Your task to perform on an android device: When is my next meeting? Image 0: 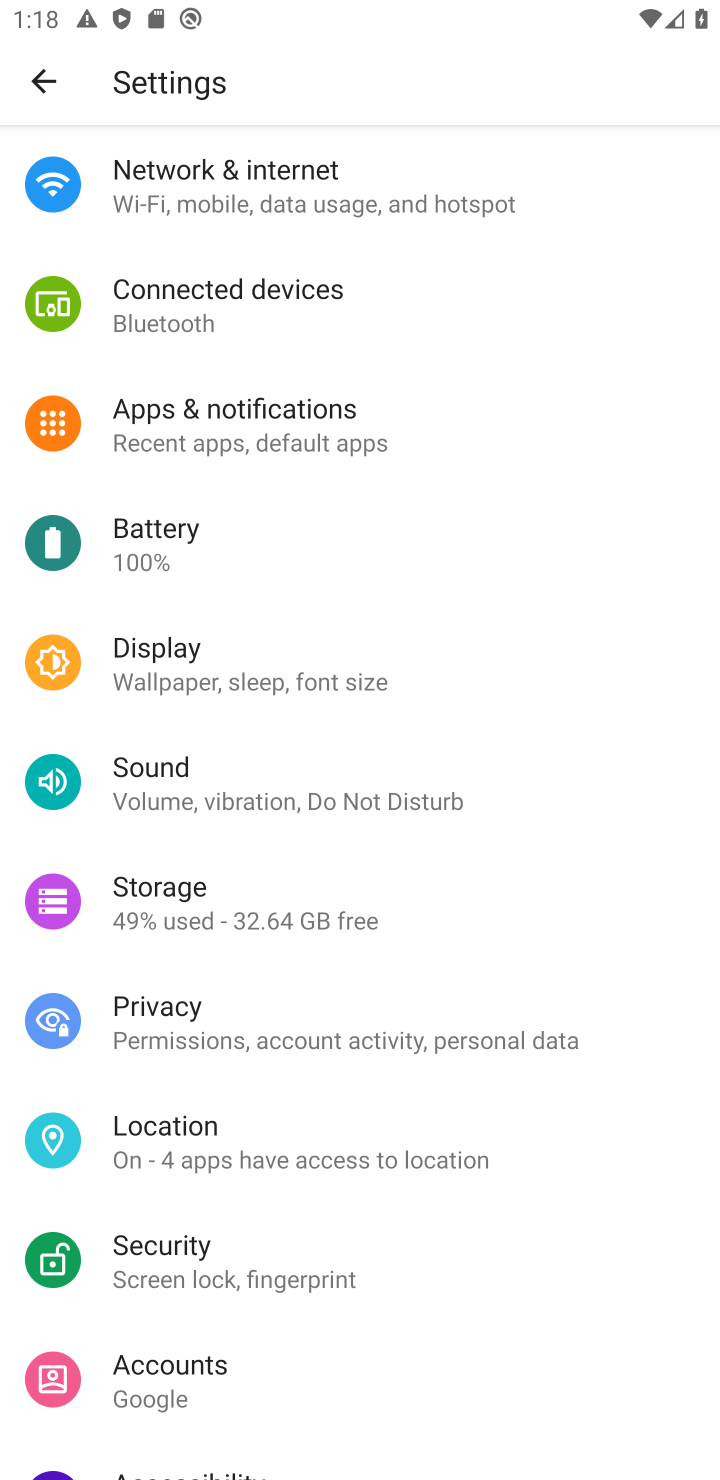
Step 0: press home button
Your task to perform on an android device: When is my next meeting? Image 1: 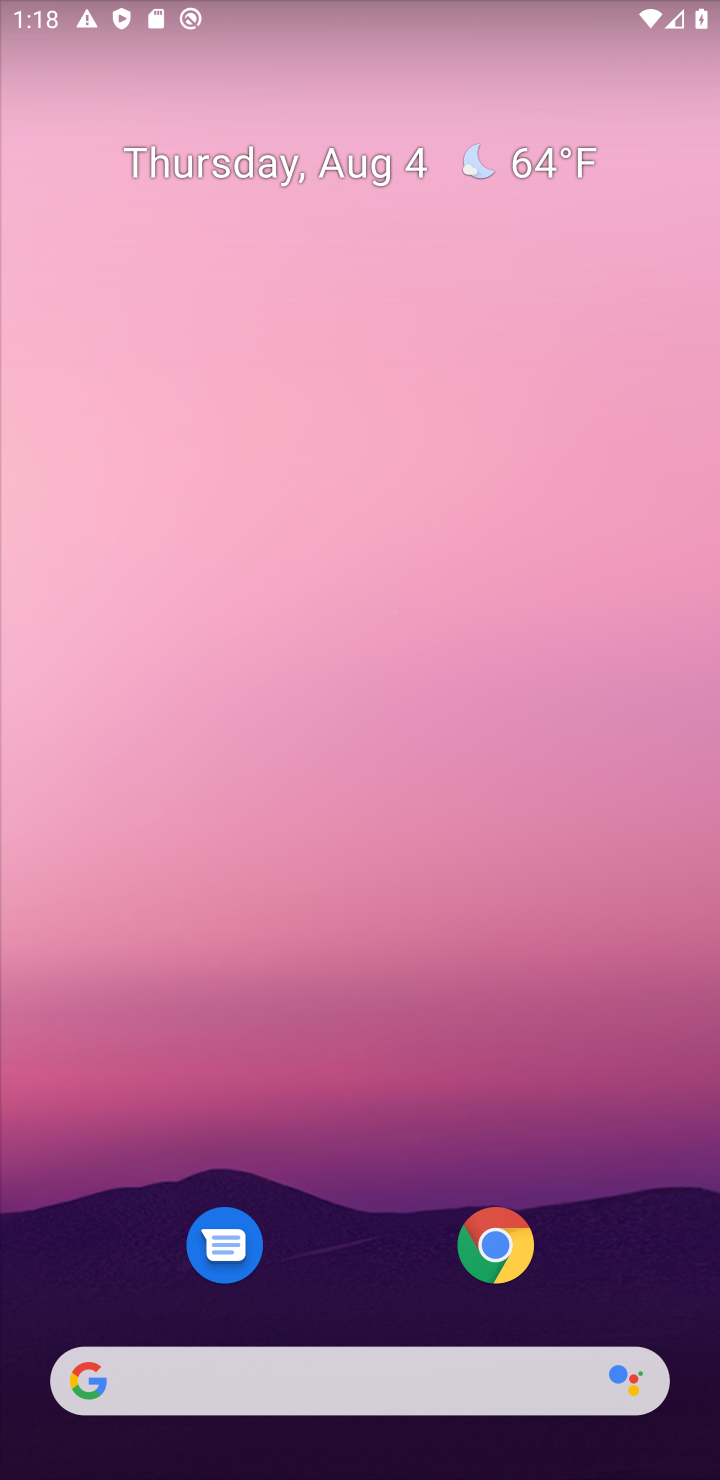
Step 1: drag from (342, 1216) to (387, 343)
Your task to perform on an android device: When is my next meeting? Image 2: 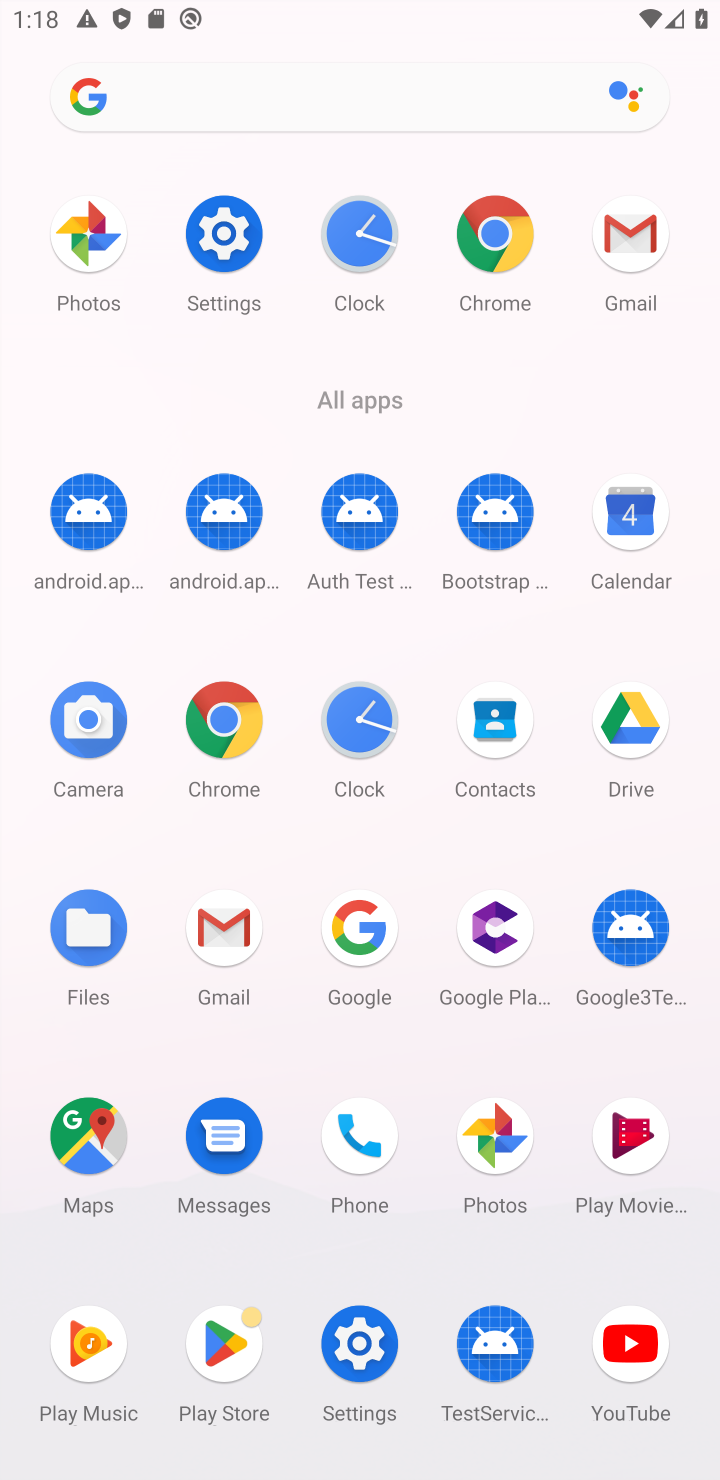
Step 2: click (645, 497)
Your task to perform on an android device: When is my next meeting? Image 3: 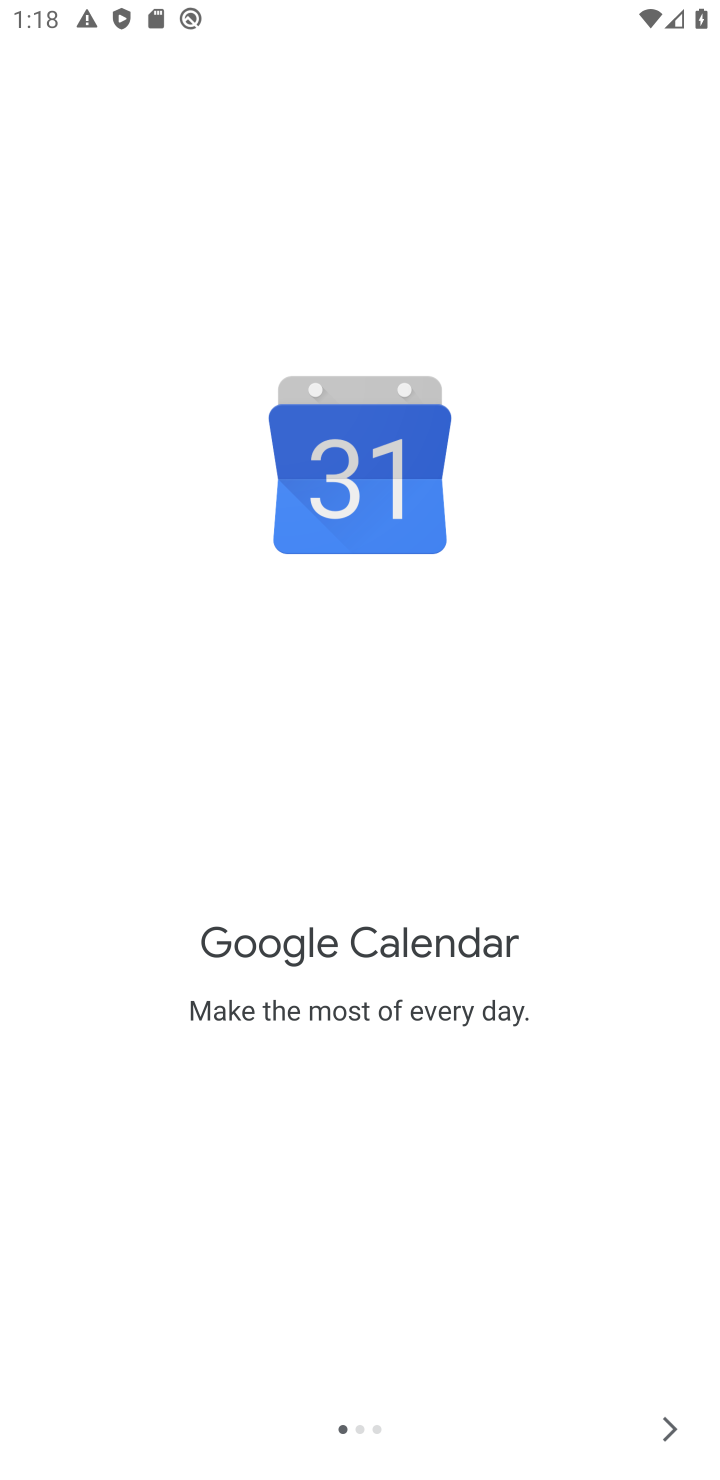
Step 3: click (664, 1413)
Your task to perform on an android device: When is my next meeting? Image 4: 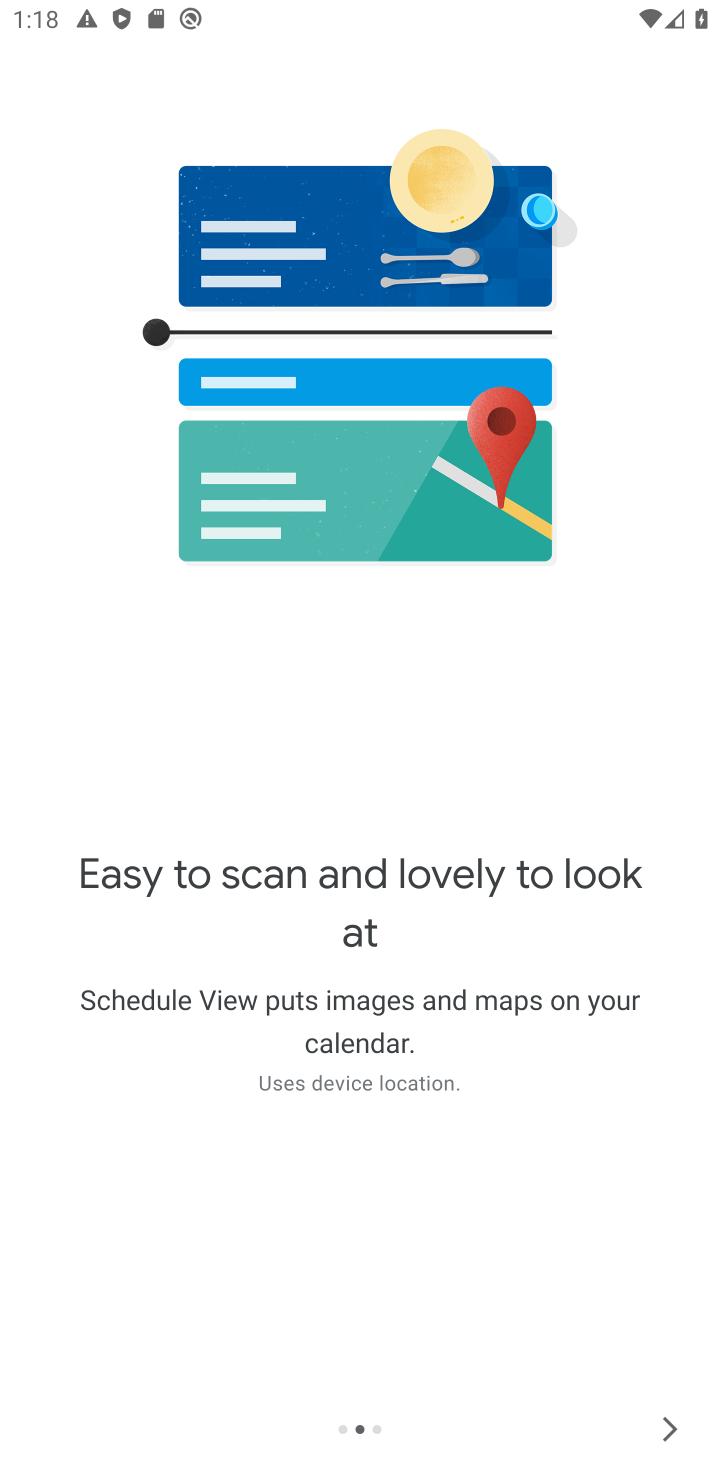
Step 4: click (670, 1419)
Your task to perform on an android device: When is my next meeting? Image 5: 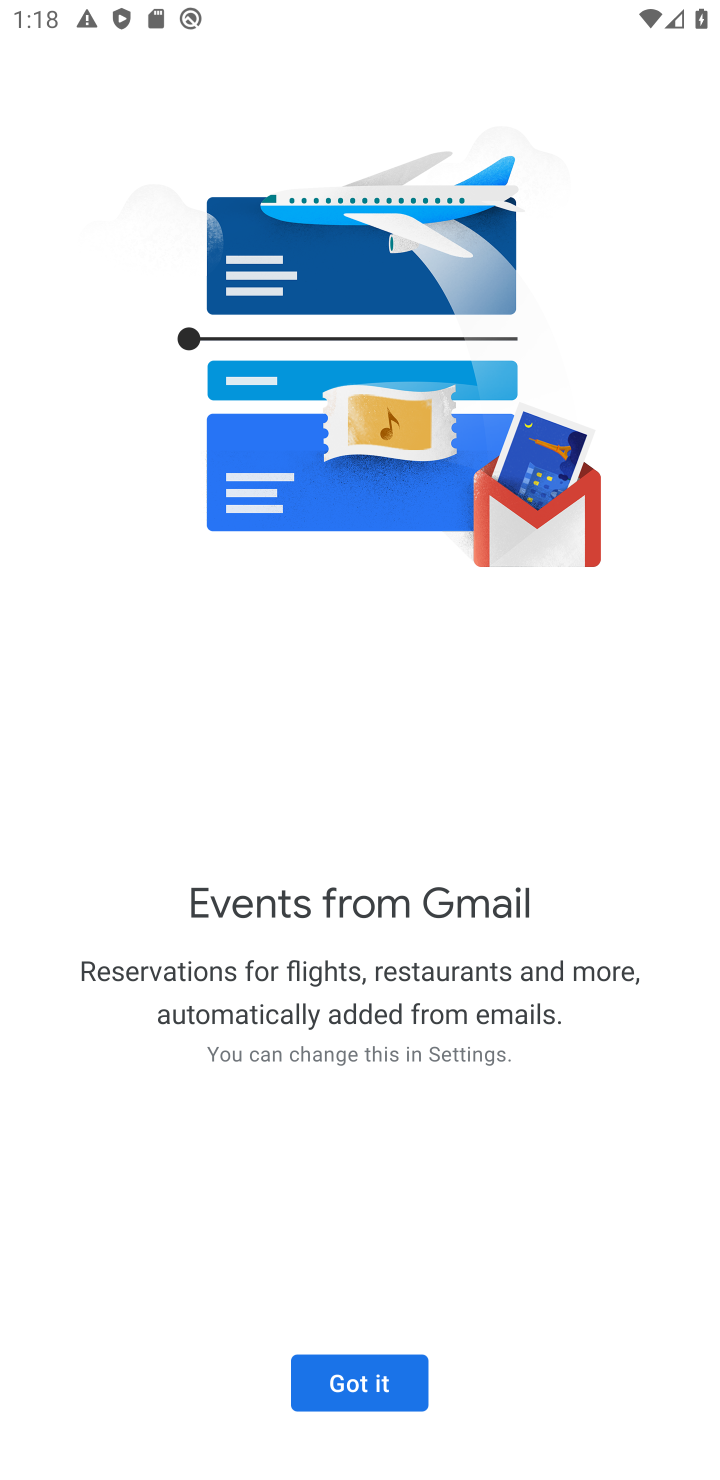
Step 5: click (355, 1367)
Your task to perform on an android device: When is my next meeting? Image 6: 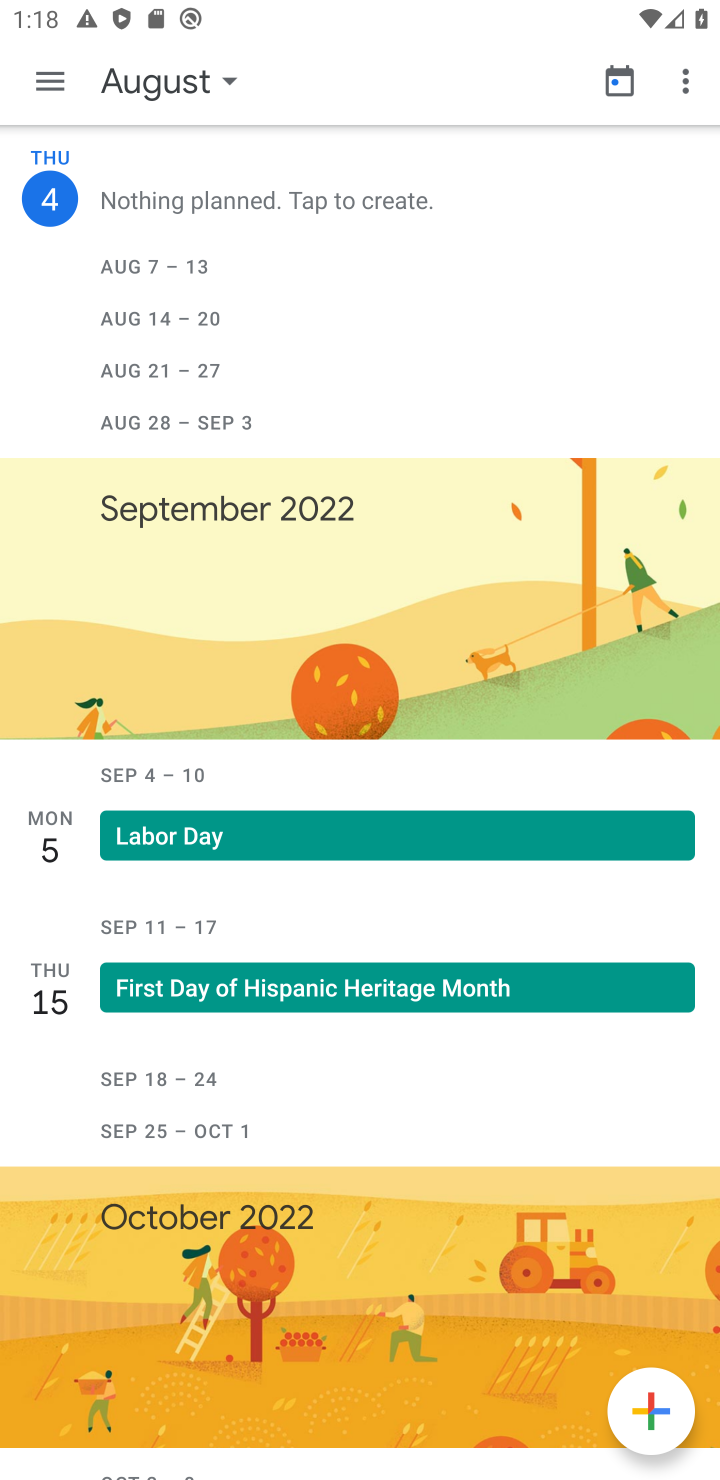
Step 6: click (189, 91)
Your task to perform on an android device: When is my next meeting? Image 7: 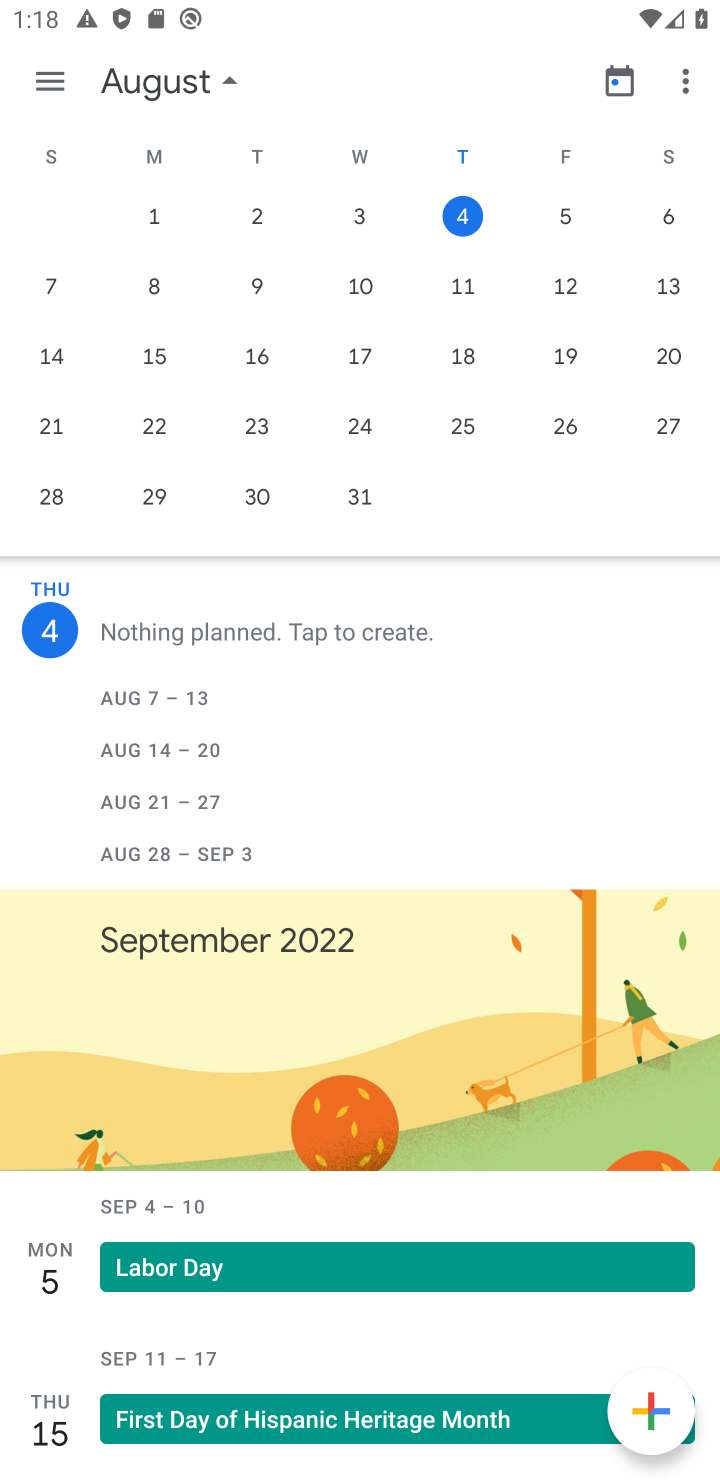
Step 7: click (445, 213)
Your task to perform on an android device: When is my next meeting? Image 8: 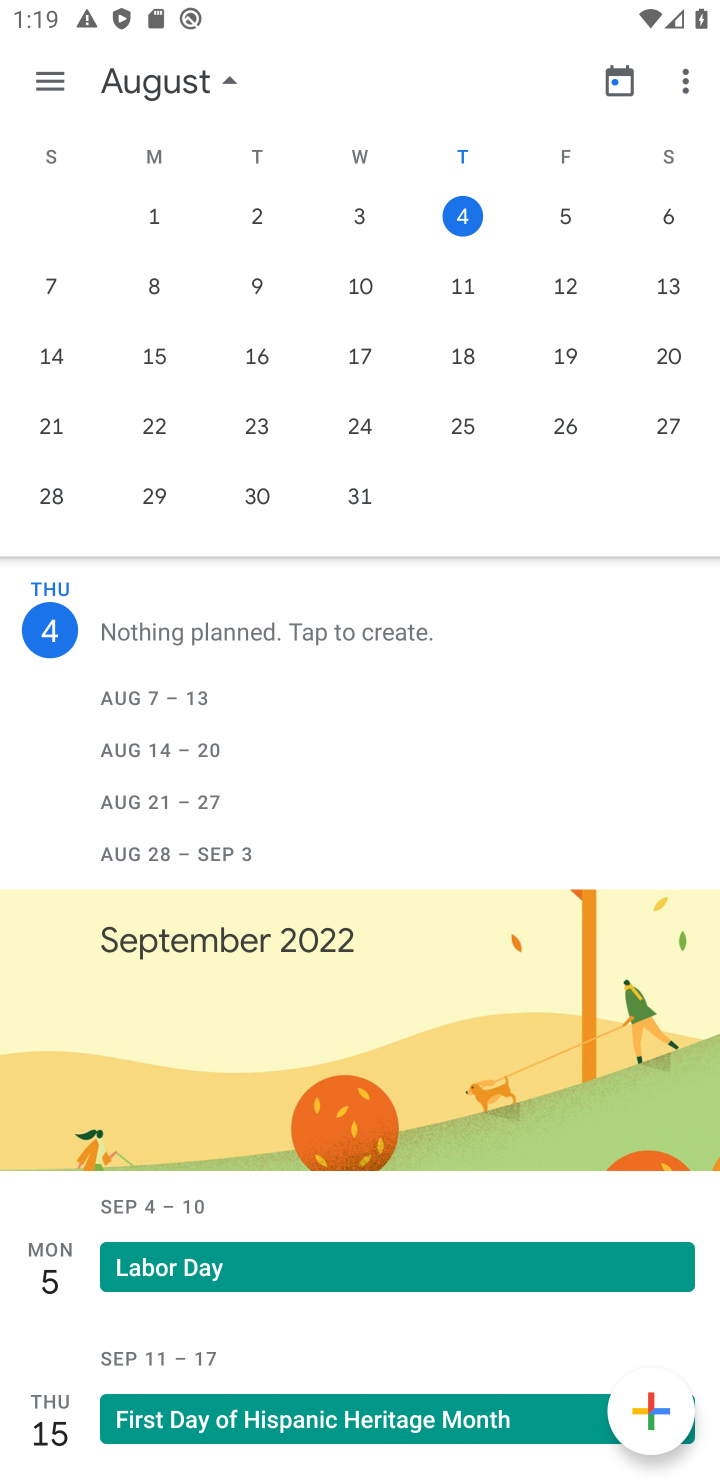
Step 8: task complete